Your task to perform on an android device: Open the calendar app, open the side menu, and click the "Day" option Image 0: 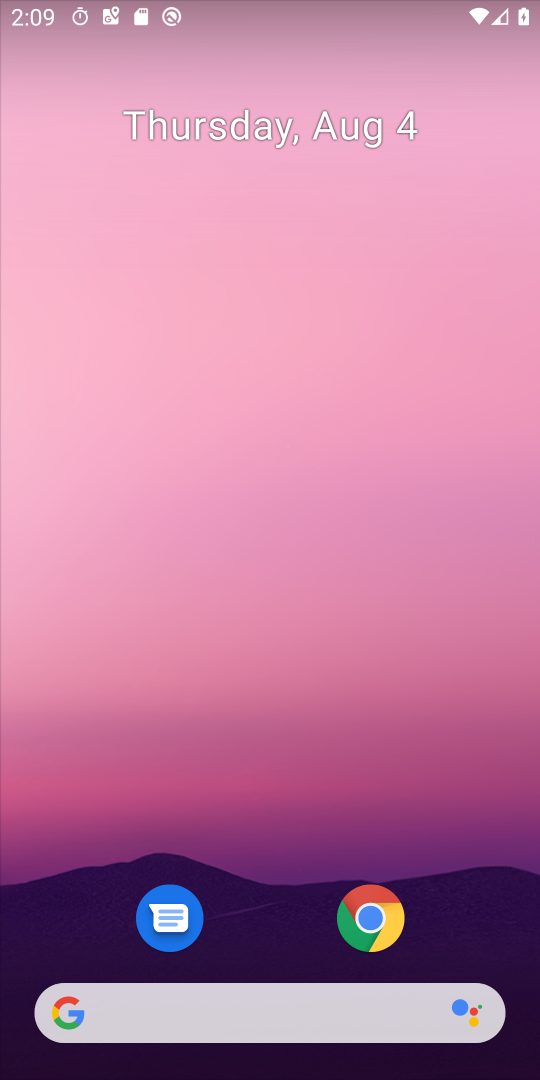
Step 0: drag from (263, 923) to (309, 283)
Your task to perform on an android device: Open the calendar app, open the side menu, and click the "Day" option Image 1: 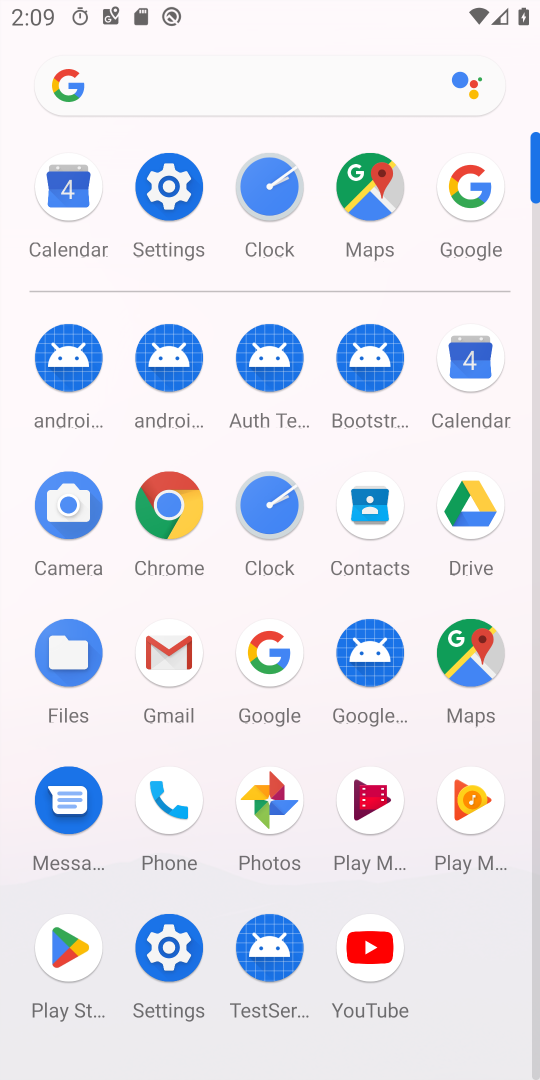
Step 1: click (491, 376)
Your task to perform on an android device: Open the calendar app, open the side menu, and click the "Day" option Image 2: 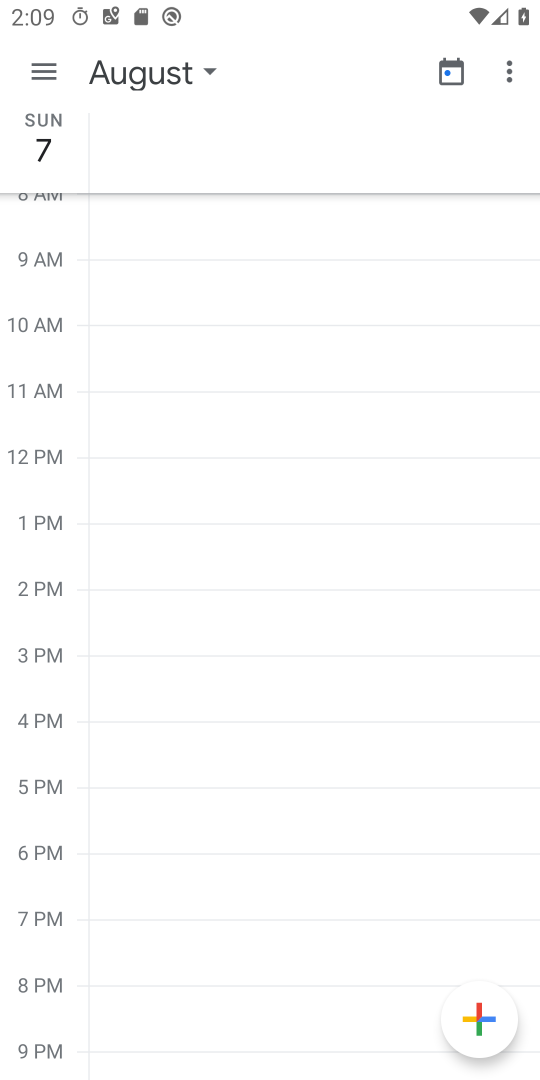
Step 2: click (22, 67)
Your task to perform on an android device: Open the calendar app, open the side menu, and click the "Day" option Image 3: 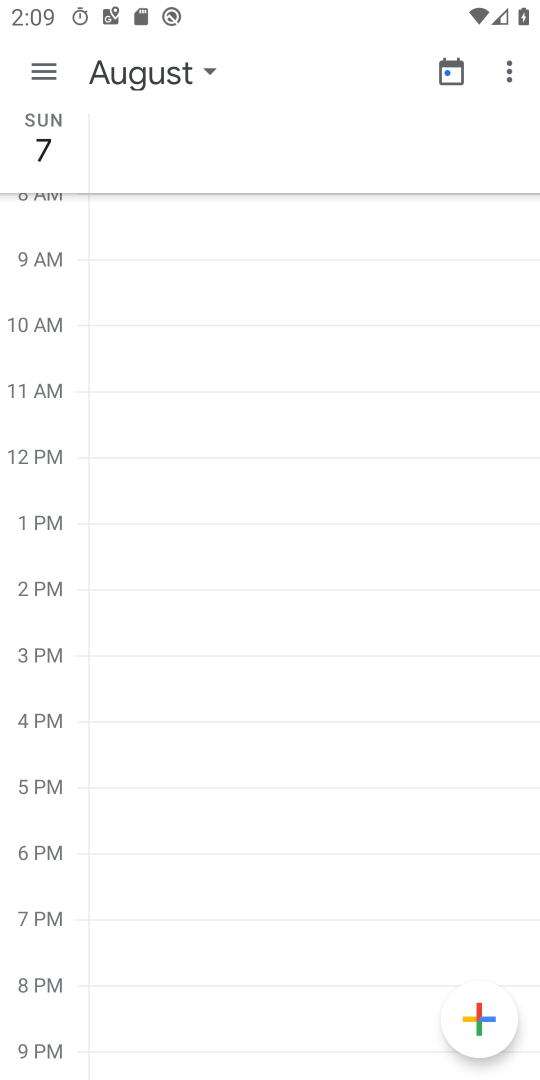
Step 3: click (40, 65)
Your task to perform on an android device: Open the calendar app, open the side menu, and click the "Day" option Image 4: 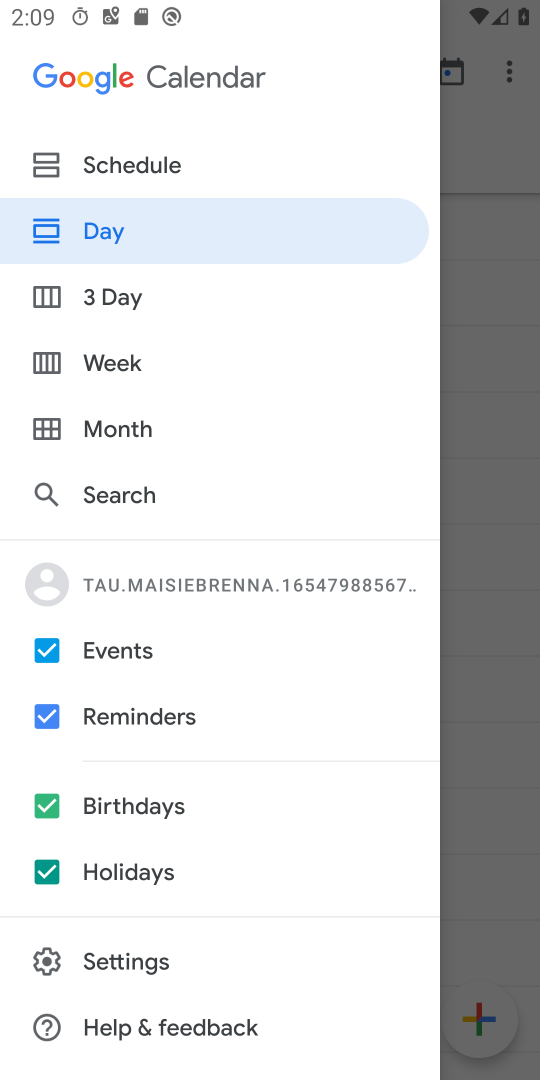
Step 4: task complete